Your task to perform on an android device: install app "Facebook Lite" Image 0: 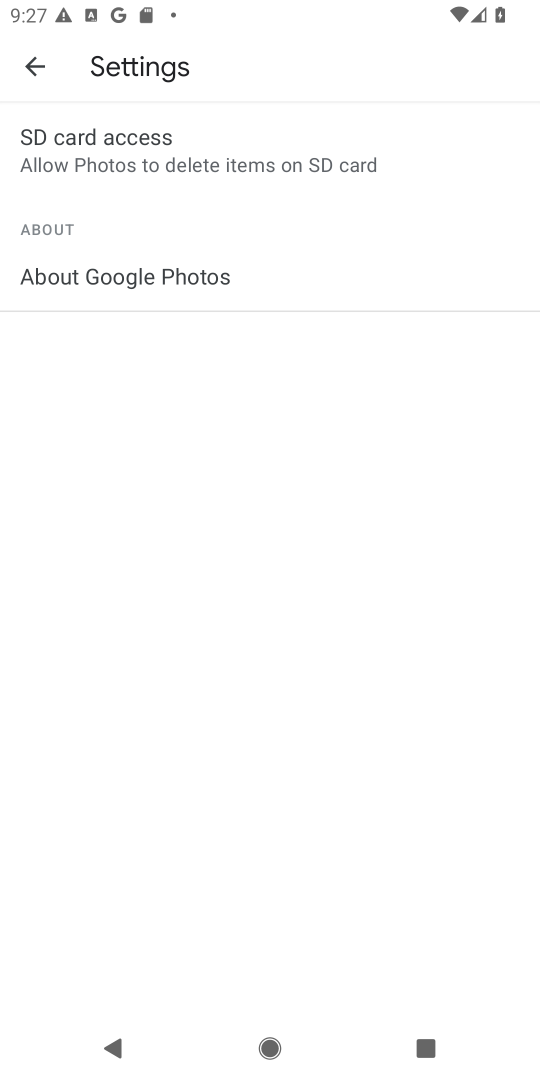
Step 0: press home button
Your task to perform on an android device: install app "Facebook Lite" Image 1: 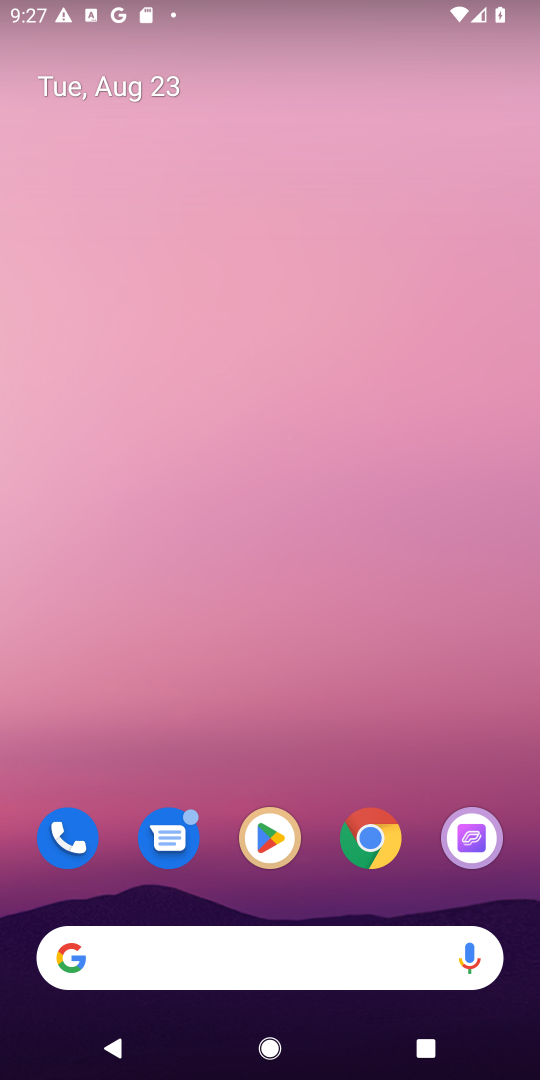
Step 1: click (290, 827)
Your task to perform on an android device: install app "Facebook Lite" Image 2: 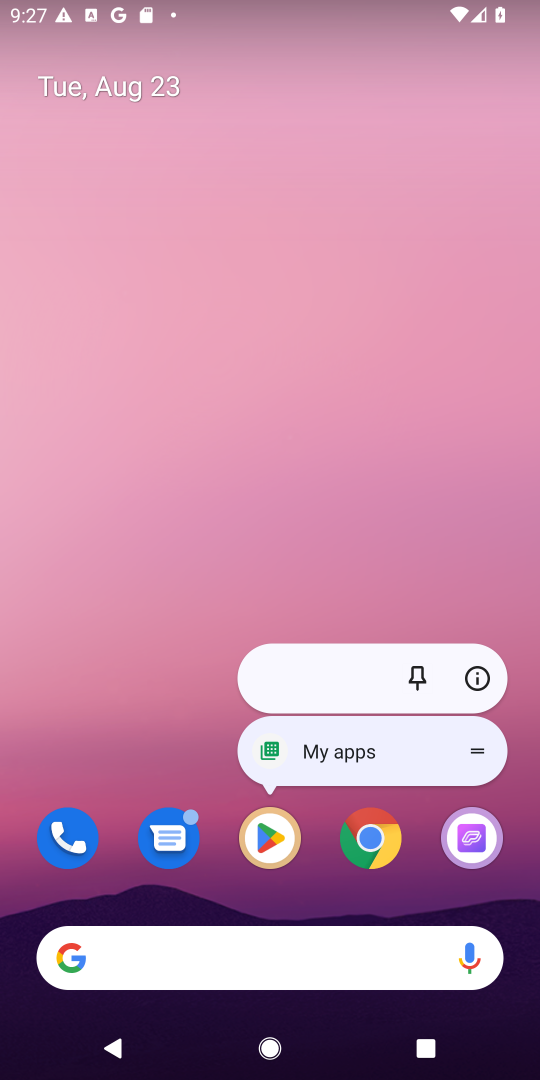
Step 2: click (263, 837)
Your task to perform on an android device: install app "Facebook Lite" Image 3: 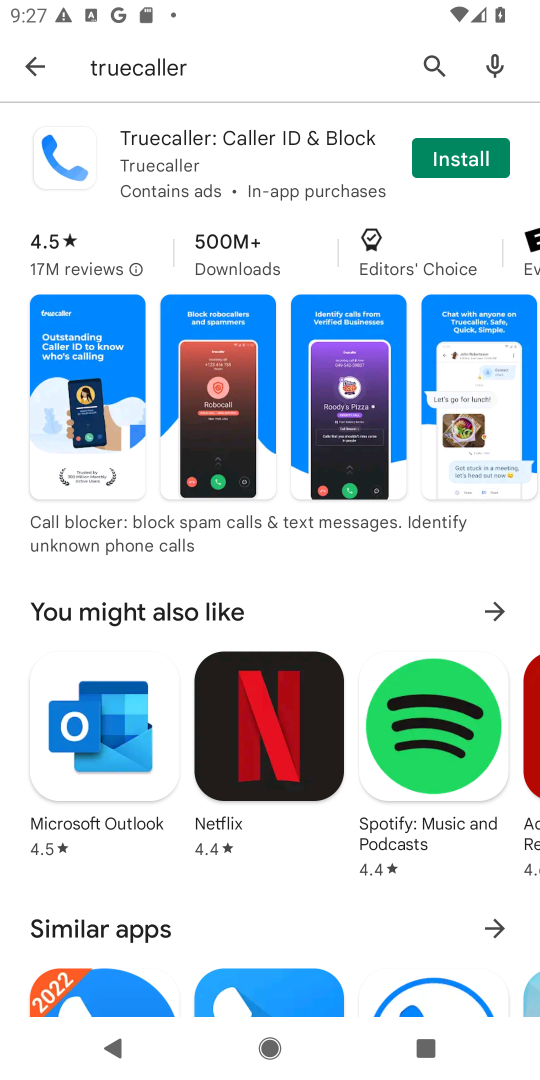
Step 3: click (430, 71)
Your task to perform on an android device: install app "Facebook Lite" Image 4: 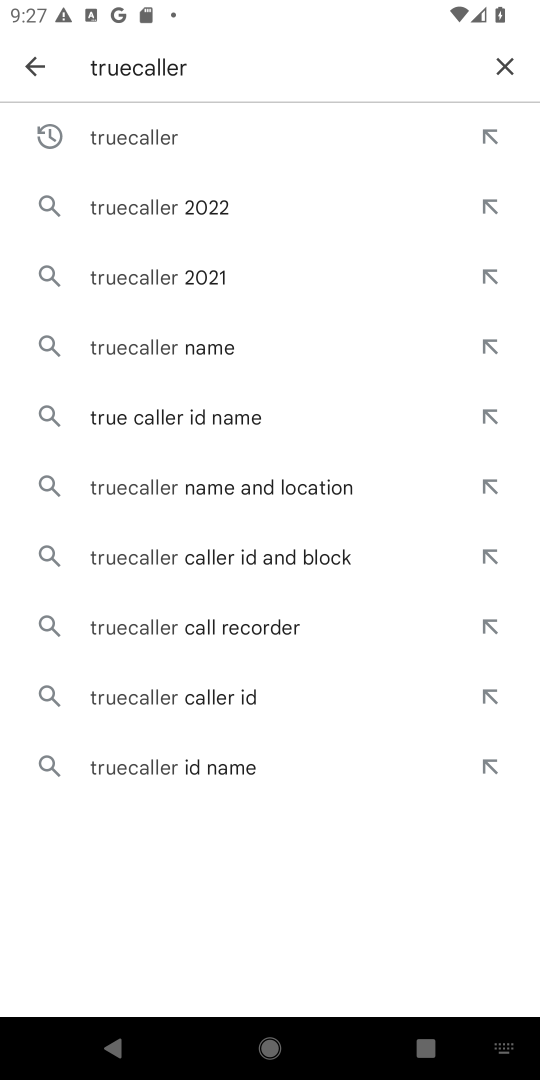
Step 4: click (508, 56)
Your task to perform on an android device: install app "Facebook Lite" Image 5: 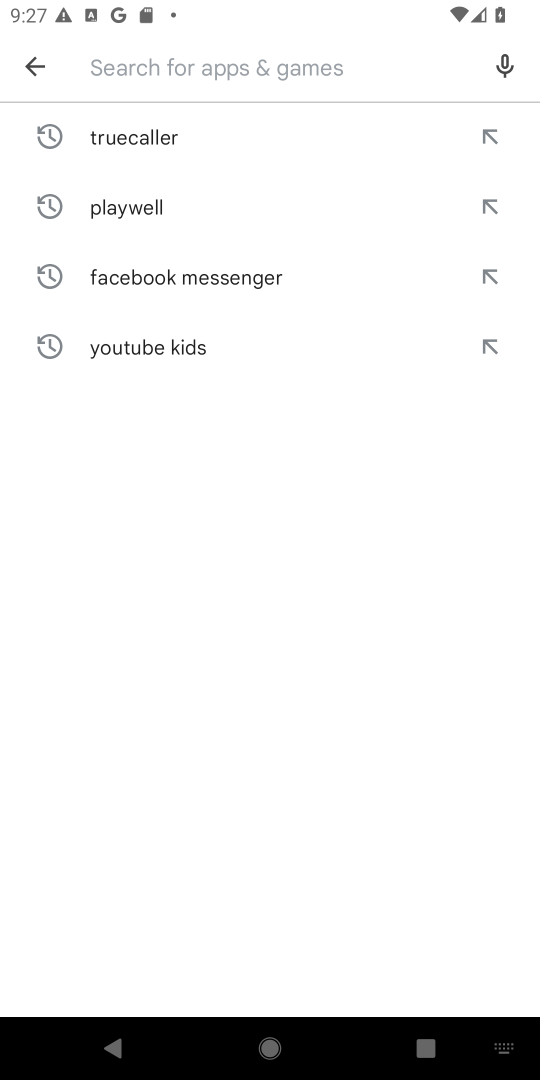
Step 5: type "Facebook Lite"
Your task to perform on an android device: install app "Facebook Lite" Image 6: 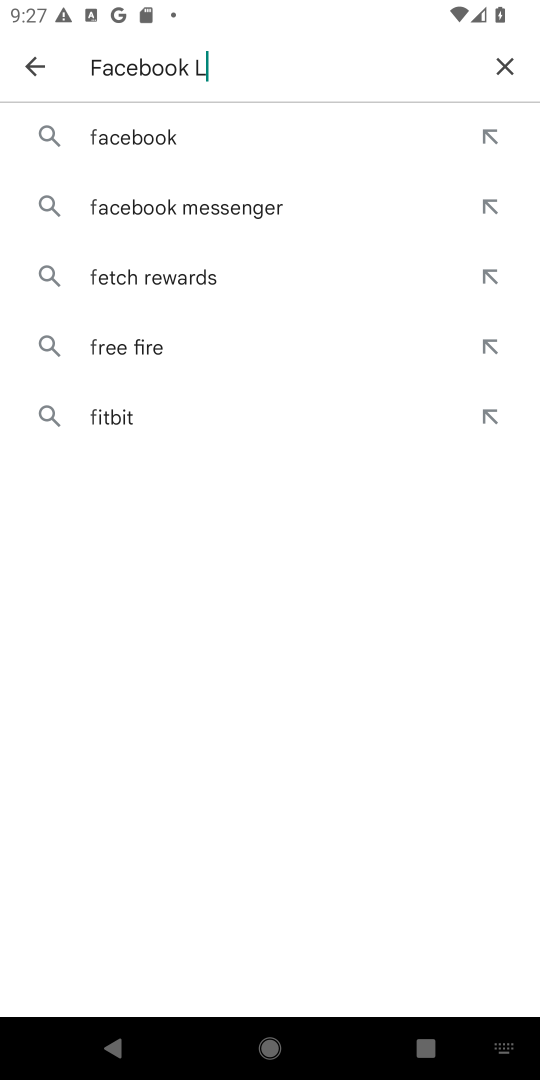
Step 6: type ""
Your task to perform on an android device: install app "Facebook Lite" Image 7: 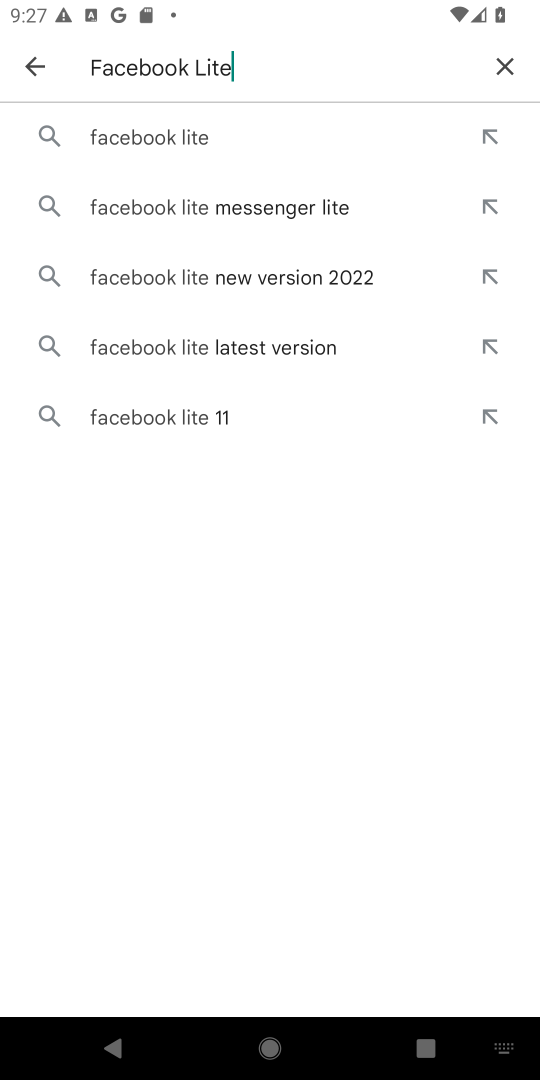
Step 7: click (150, 127)
Your task to perform on an android device: install app "Facebook Lite" Image 8: 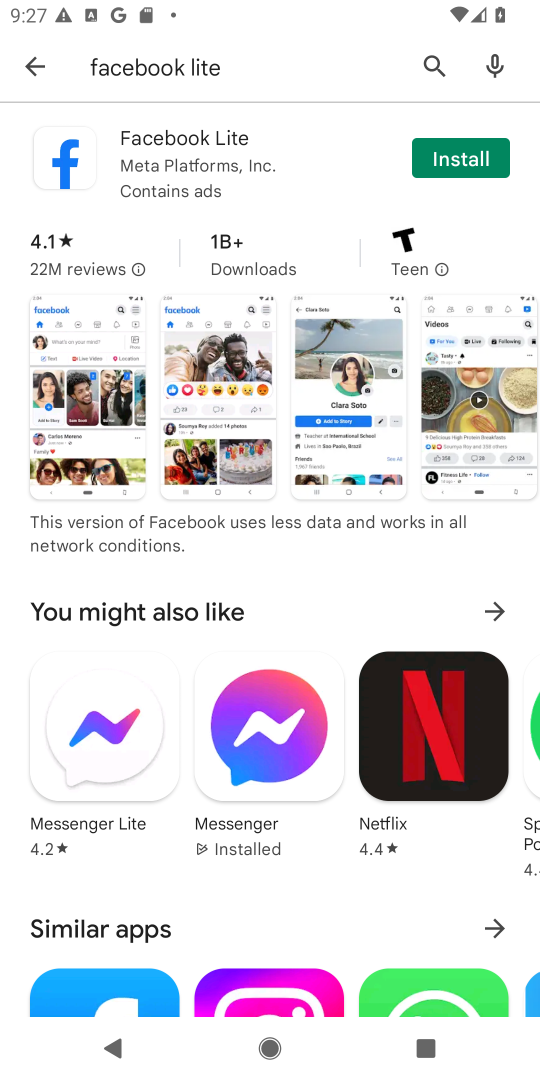
Step 8: click (453, 156)
Your task to perform on an android device: install app "Facebook Lite" Image 9: 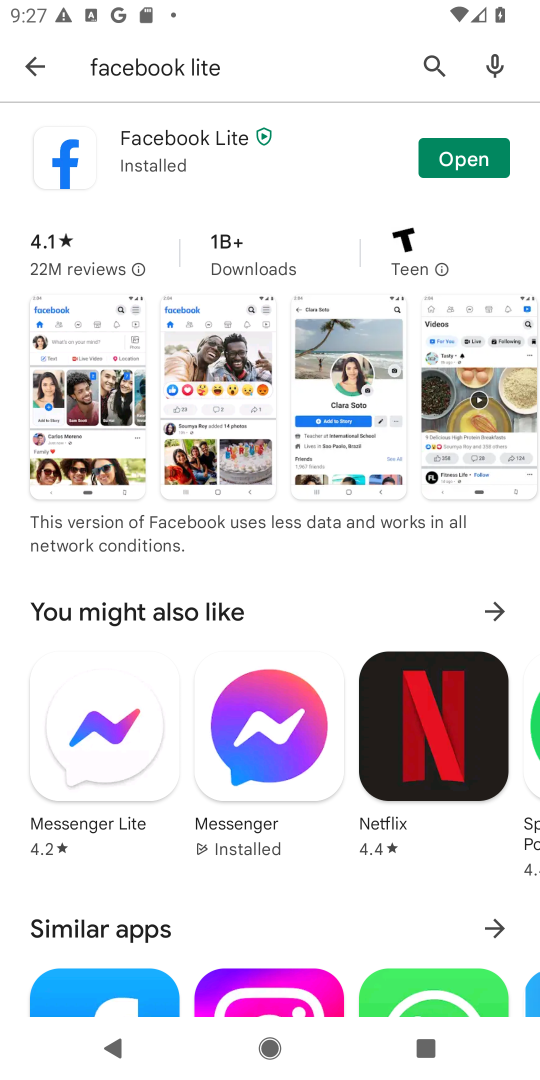
Step 9: task complete